Your task to perform on an android device: delete browsing data in the chrome app Image 0: 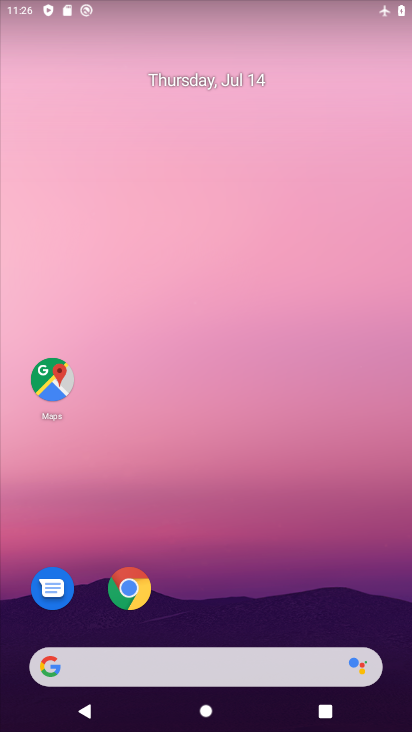
Step 0: drag from (174, 561) to (146, 120)
Your task to perform on an android device: delete browsing data in the chrome app Image 1: 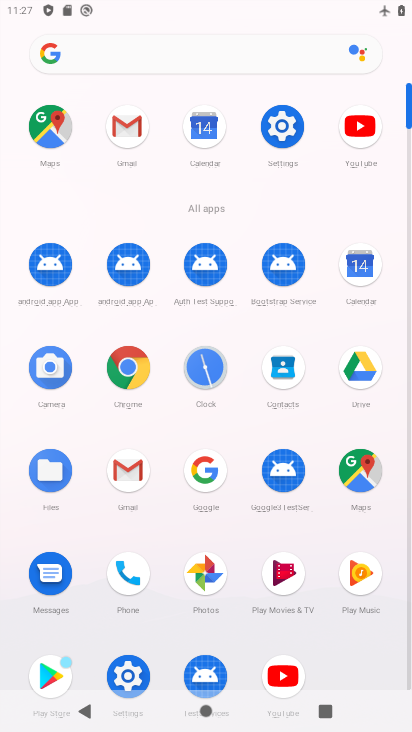
Step 1: click (125, 383)
Your task to perform on an android device: delete browsing data in the chrome app Image 2: 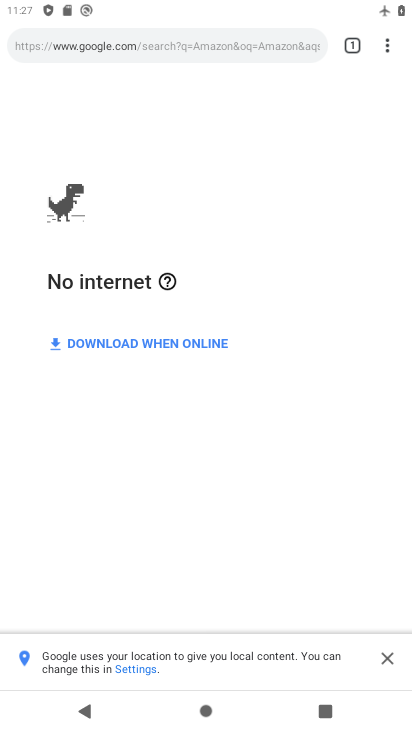
Step 2: click (387, 45)
Your task to perform on an android device: delete browsing data in the chrome app Image 3: 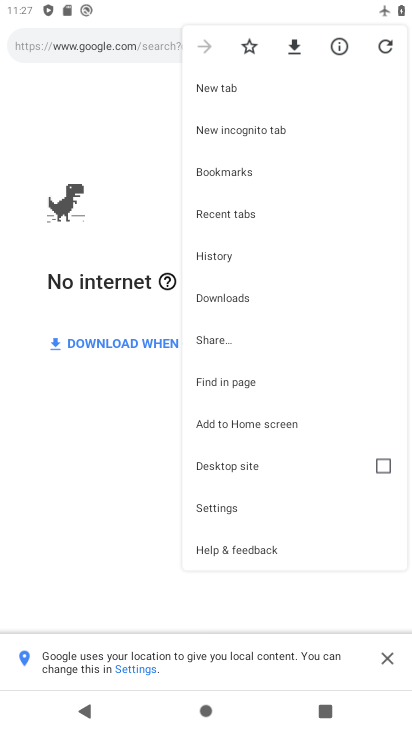
Step 3: click (216, 260)
Your task to perform on an android device: delete browsing data in the chrome app Image 4: 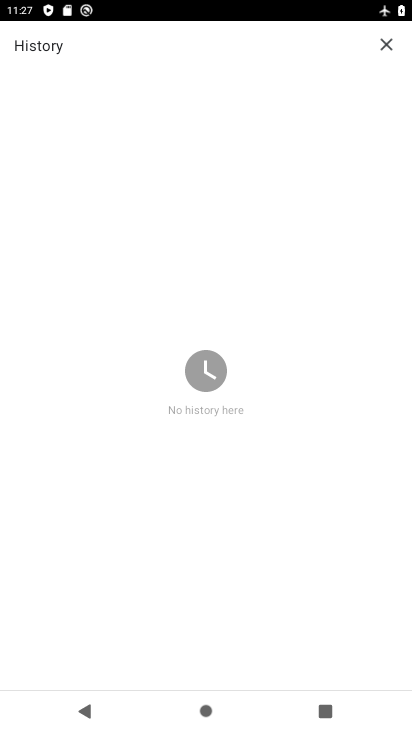
Step 4: task complete